Your task to perform on an android device: turn notification dots off Image 0: 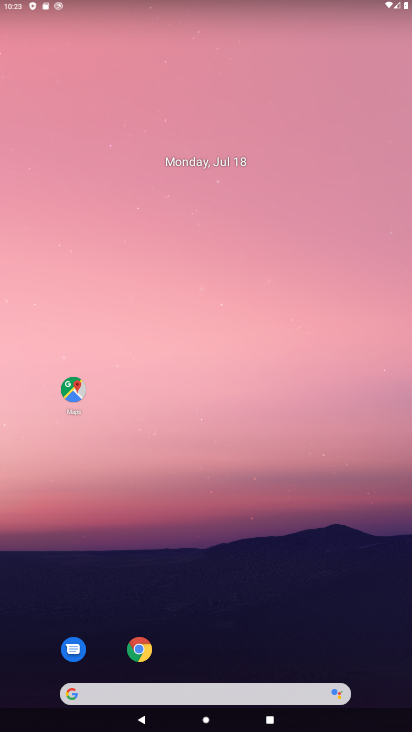
Step 0: drag from (256, 570) to (208, 53)
Your task to perform on an android device: turn notification dots off Image 1: 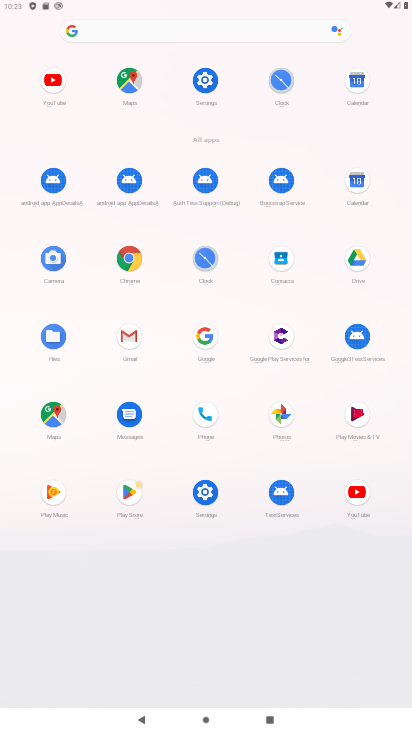
Step 1: click (203, 86)
Your task to perform on an android device: turn notification dots off Image 2: 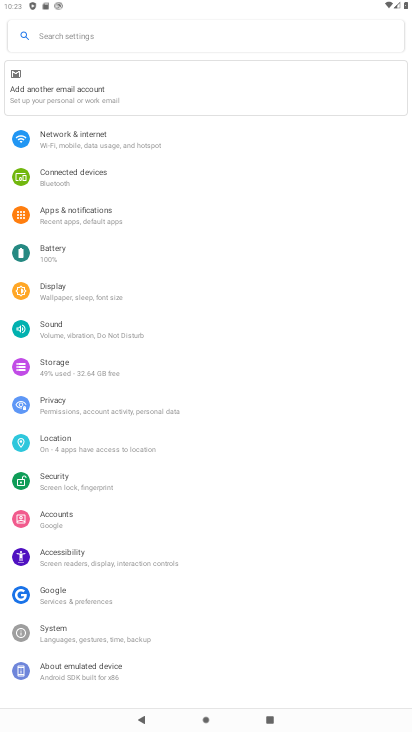
Step 2: click (91, 211)
Your task to perform on an android device: turn notification dots off Image 3: 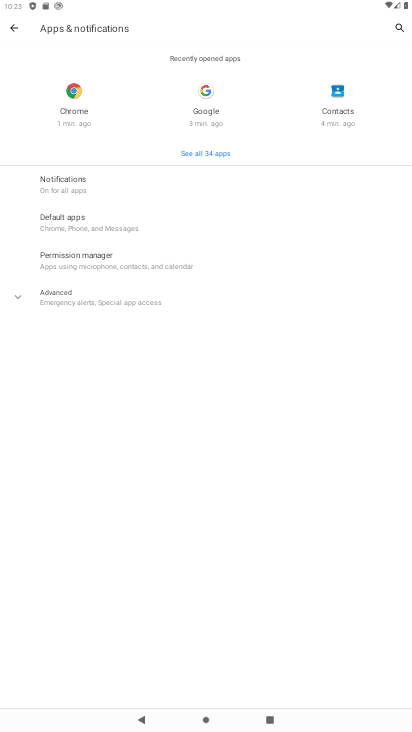
Step 3: click (67, 180)
Your task to perform on an android device: turn notification dots off Image 4: 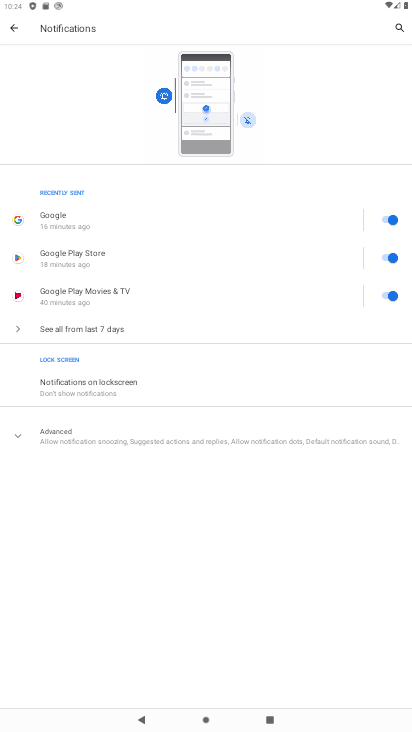
Step 4: click (36, 433)
Your task to perform on an android device: turn notification dots off Image 5: 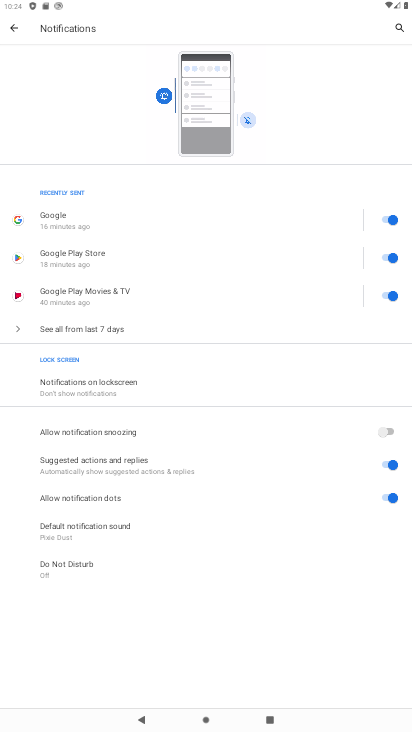
Step 5: click (396, 494)
Your task to perform on an android device: turn notification dots off Image 6: 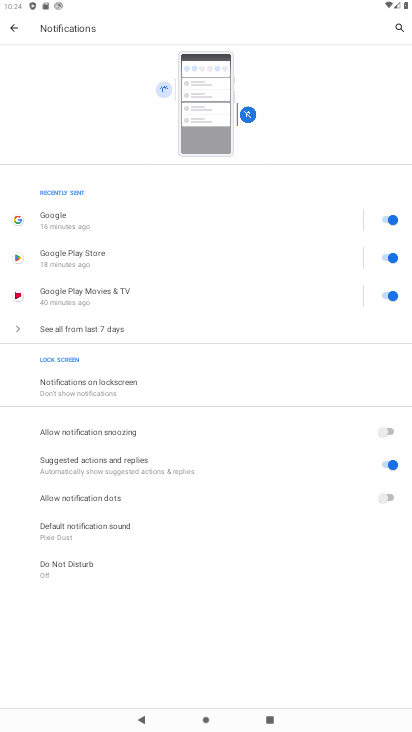
Step 6: task complete